Your task to perform on an android device: Go to settings Image 0: 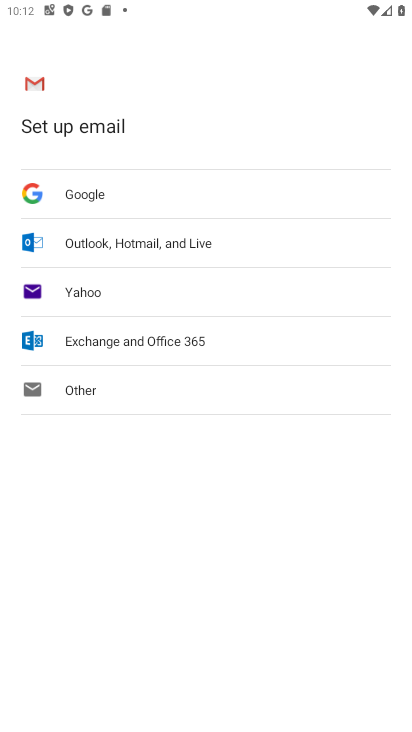
Step 0: click (307, 600)
Your task to perform on an android device: Go to settings Image 1: 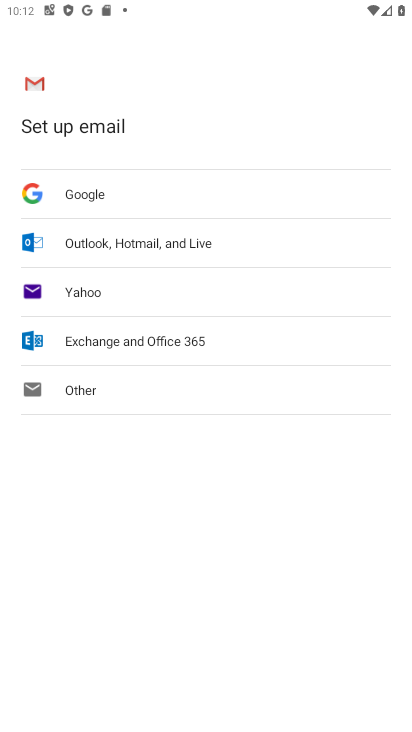
Step 1: press home button
Your task to perform on an android device: Go to settings Image 2: 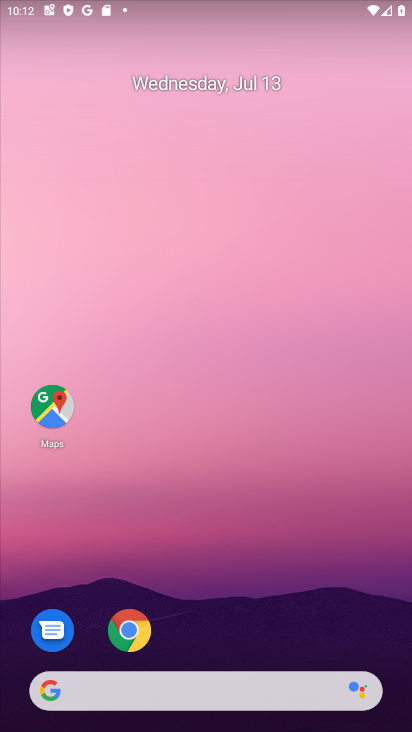
Step 2: drag from (257, 651) to (227, 256)
Your task to perform on an android device: Go to settings Image 3: 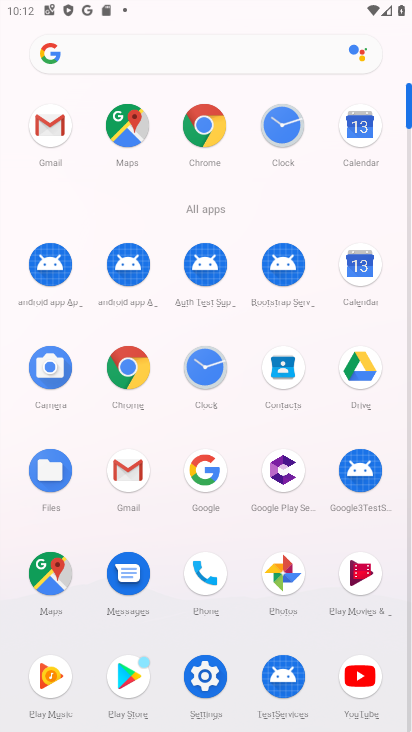
Step 3: click (216, 682)
Your task to perform on an android device: Go to settings Image 4: 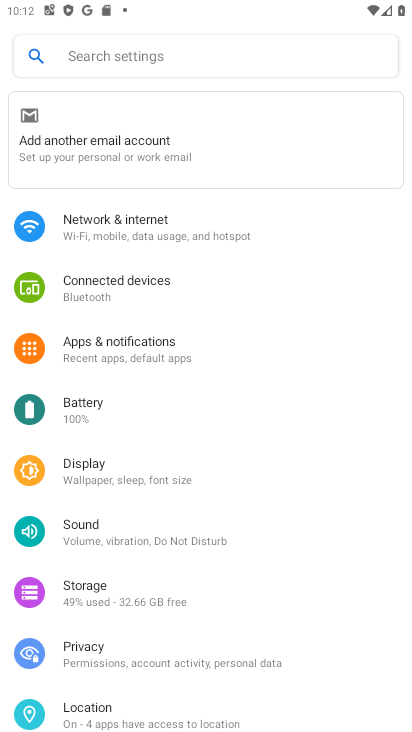
Step 4: task complete